Your task to perform on an android device: clear all cookies in the chrome app Image 0: 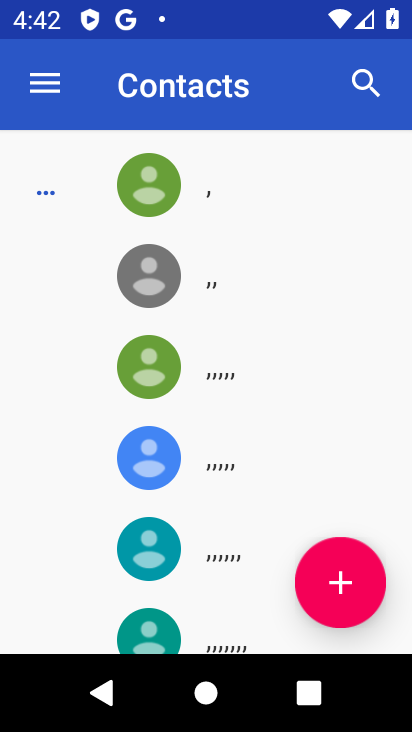
Step 0: press home button
Your task to perform on an android device: clear all cookies in the chrome app Image 1: 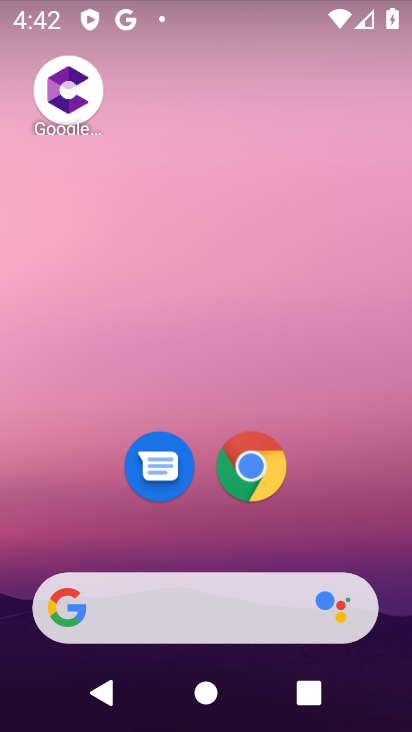
Step 1: click (260, 464)
Your task to perform on an android device: clear all cookies in the chrome app Image 2: 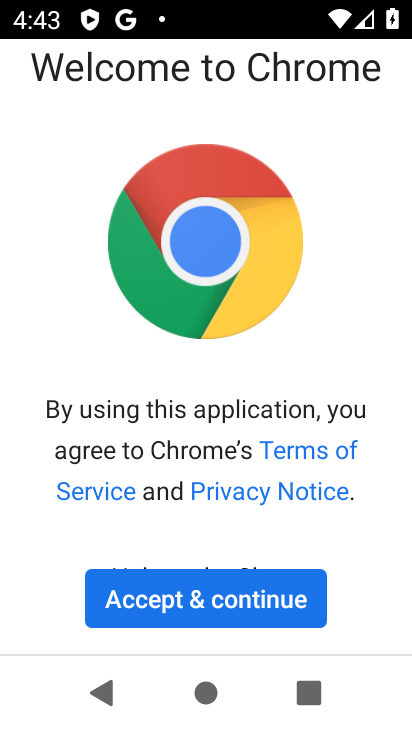
Step 2: click (269, 587)
Your task to perform on an android device: clear all cookies in the chrome app Image 3: 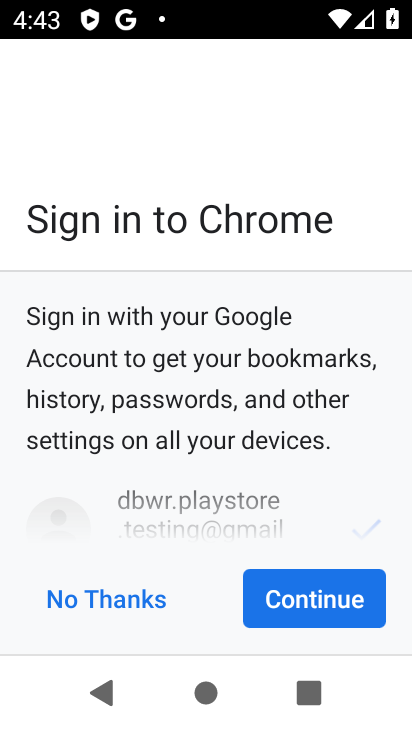
Step 3: click (302, 605)
Your task to perform on an android device: clear all cookies in the chrome app Image 4: 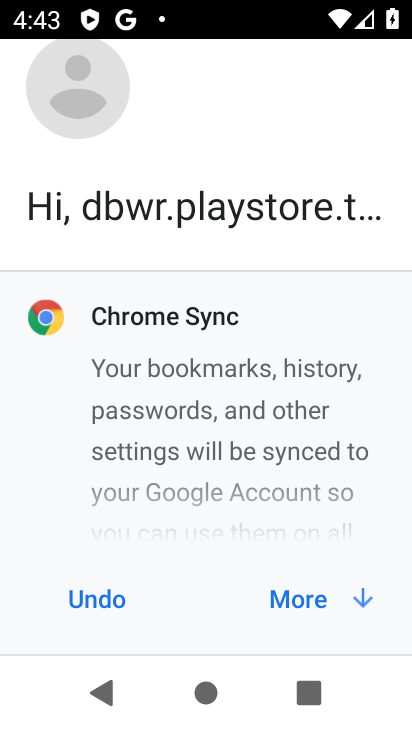
Step 4: click (302, 605)
Your task to perform on an android device: clear all cookies in the chrome app Image 5: 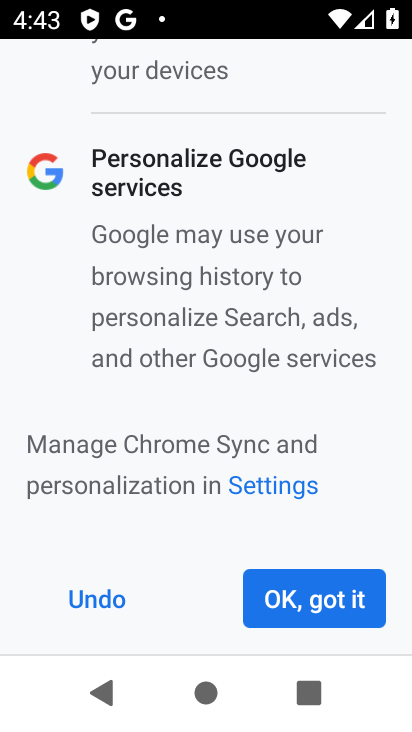
Step 5: click (302, 605)
Your task to perform on an android device: clear all cookies in the chrome app Image 6: 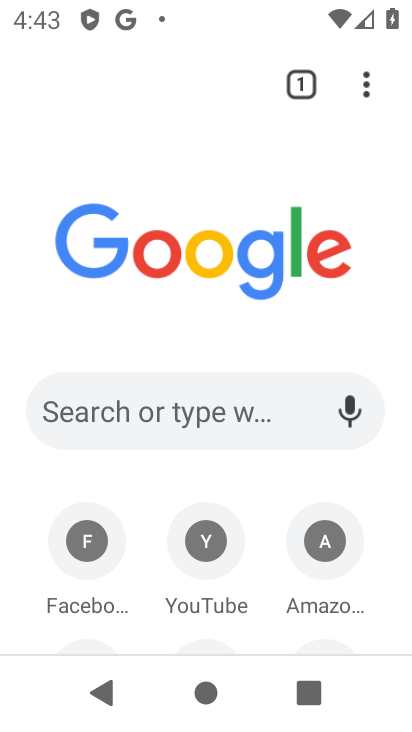
Step 6: click (373, 91)
Your task to perform on an android device: clear all cookies in the chrome app Image 7: 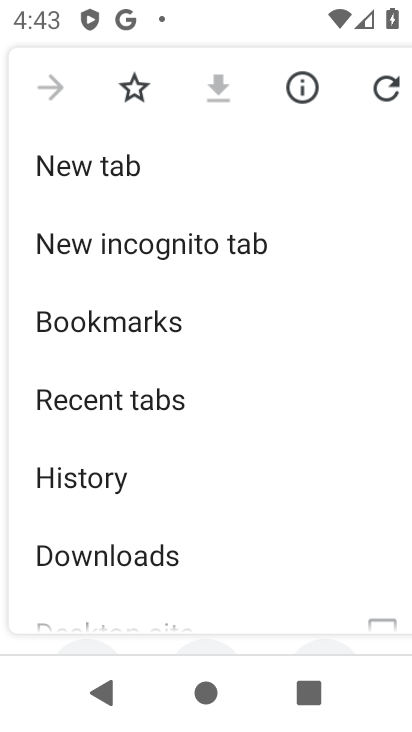
Step 7: click (175, 466)
Your task to perform on an android device: clear all cookies in the chrome app Image 8: 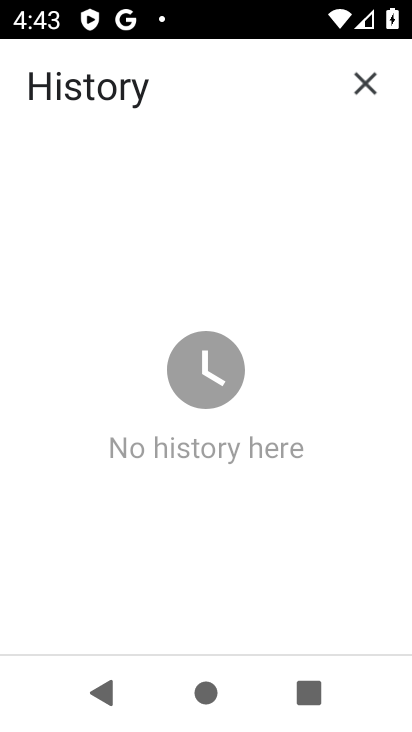
Step 8: task complete